Your task to perform on an android device: check google app version Image 0: 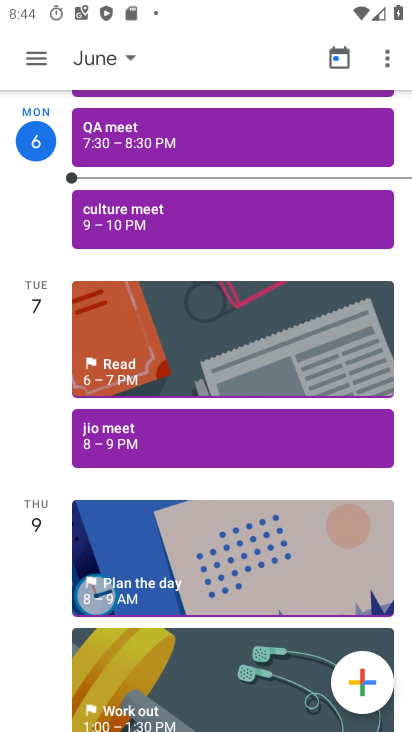
Step 0: press home button
Your task to perform on an android device: check google app version Image 1: 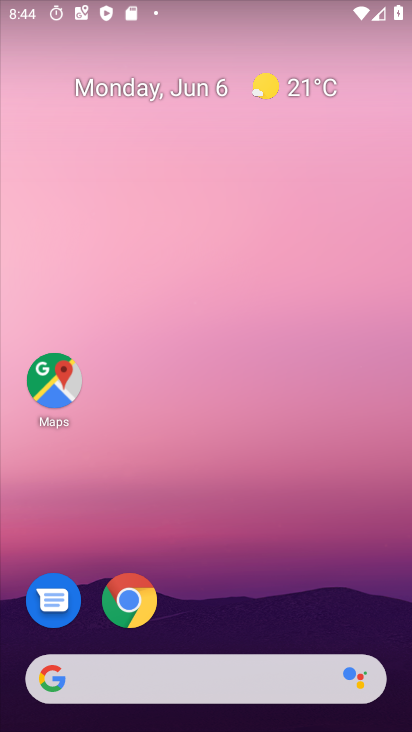
Step 1: drag from (298, 498) to (250, 49)
Your task to perform on an android device: check google app version Image 2: 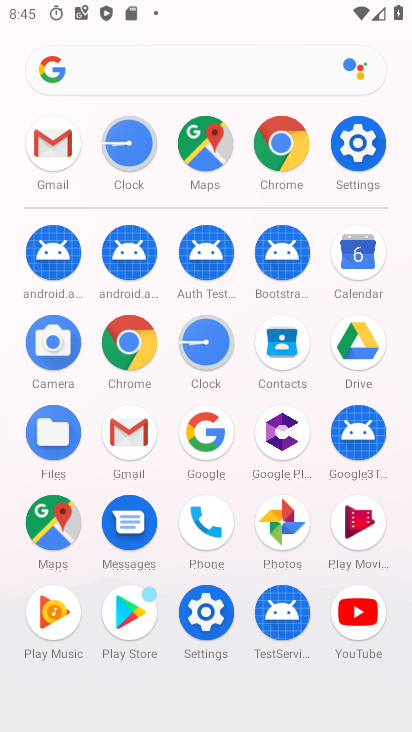
Step 2: drag from (0, 577) to (14, 193)
Your task to perform on an android device: check google app version Image 3: 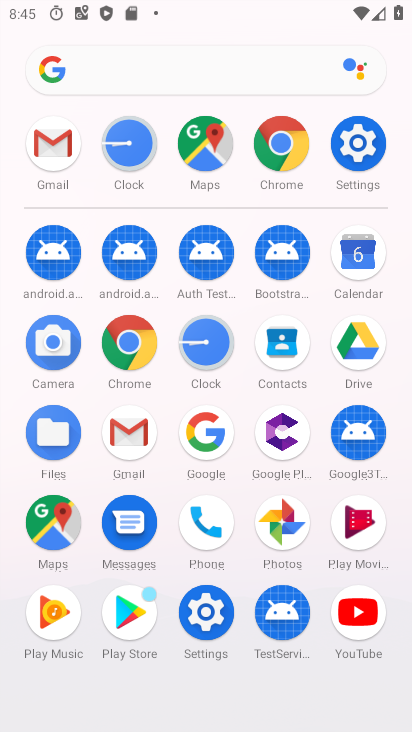
Step 3: click (204, 430)
Your task to perform on an android device: check google app version Image 4: 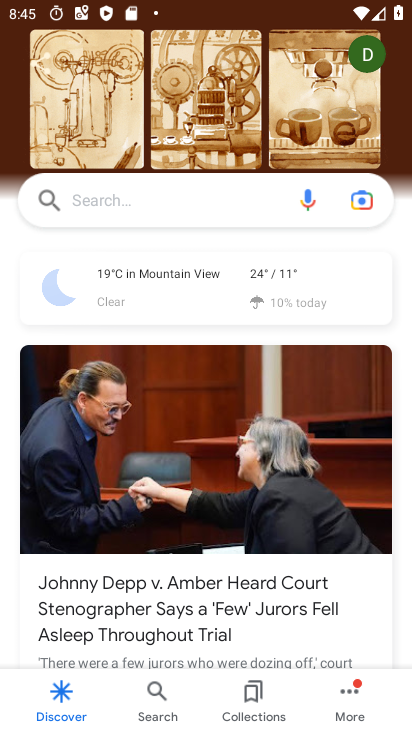
Step 4: click (346, 691)
Your task to perform on an android device: check google app version Image 5: 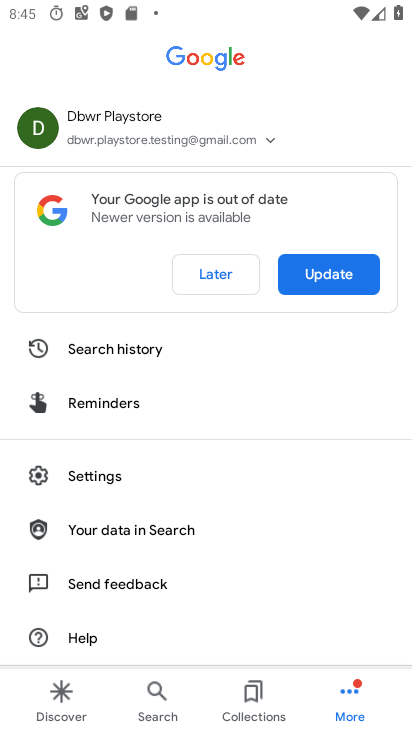
Step 5: click (108, 469)
Your task to perform on an android device: check google app version Image 6: 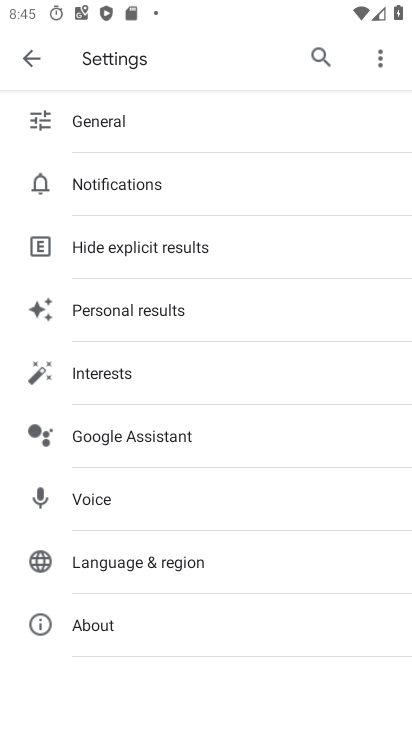
Step 6: click (128, 650)
Your task to perform on an android device: check google app version Image 7: 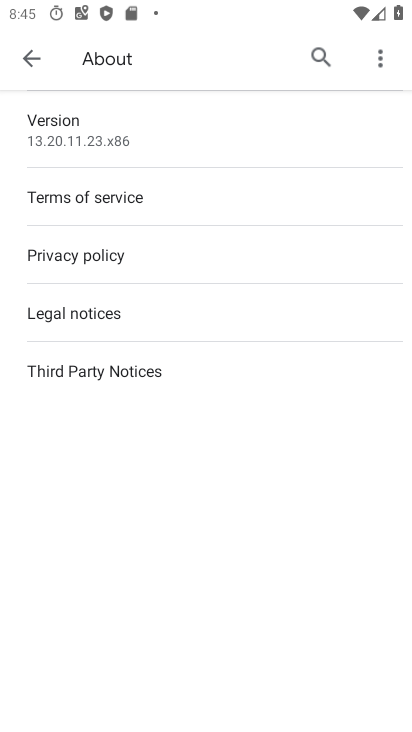
Step 7: task complete